Your task to perform on an android device: toggle translation in the chrome app Image 0: 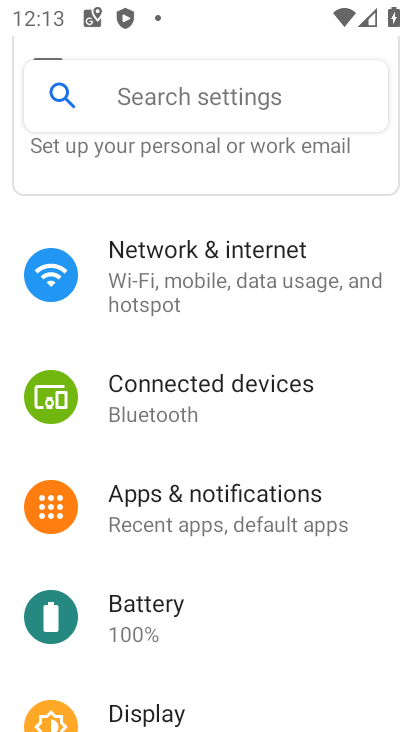
Step 0: press home button
Your task to perform on an android device: toggle translation in the chrome app Image 1: 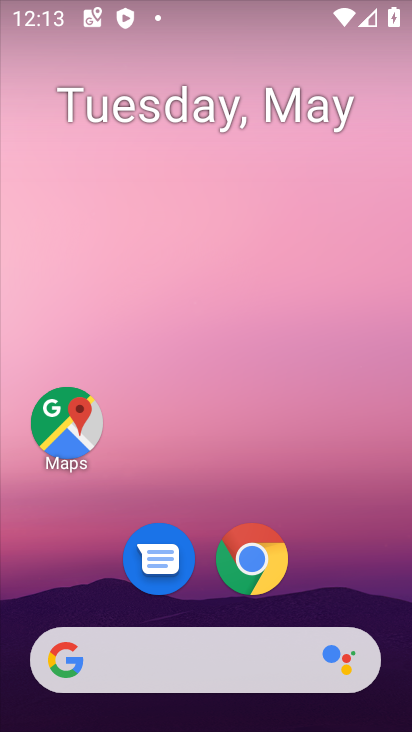
Step 1: click (271, 575)
Your task to perform on an android device: toggle translation in the chrome app Image 2: 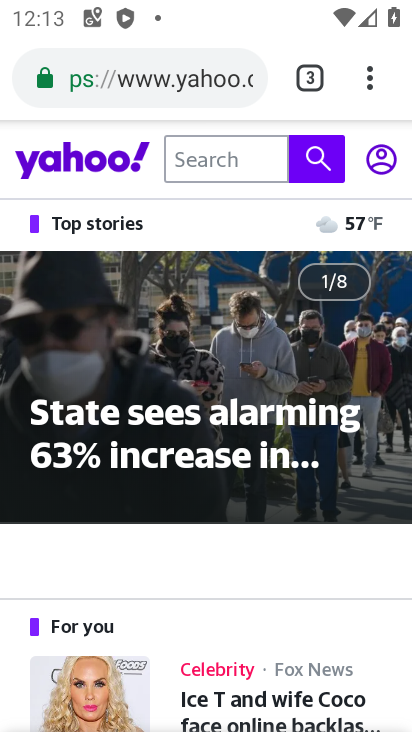
Step 2: click (362, 82)
Your task to perform on an android device: toggle translation in the chrome app Image 3: 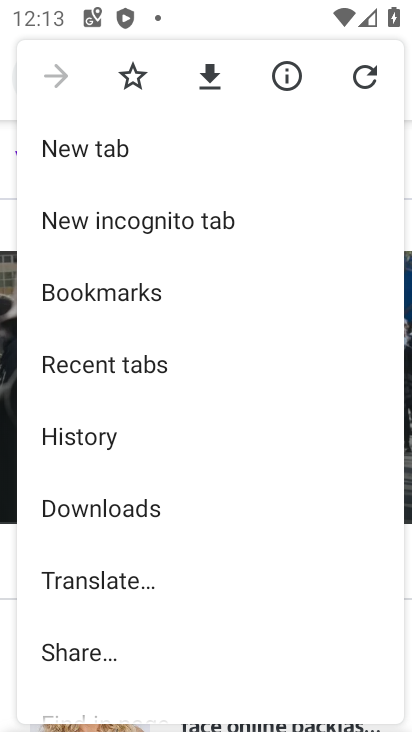
Step 3: drag from (162, 696) to (255, 294)
Your task to perform on an android device: toggle translation in the chrome app Image 4: 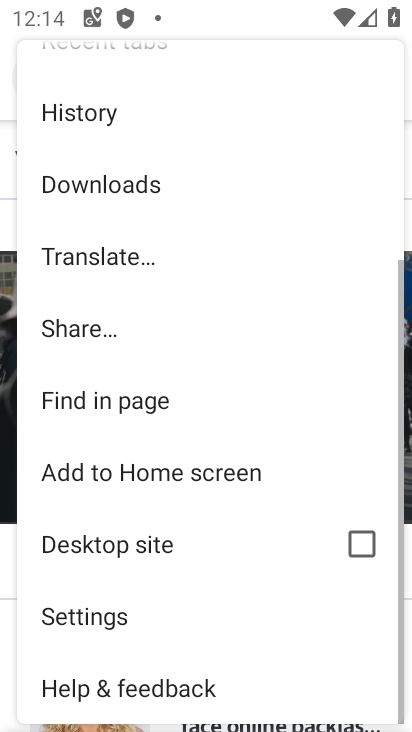
Step 4: click (140, 613)
Your task to perform on an android device: toggle translation in the chrome app Image 5: 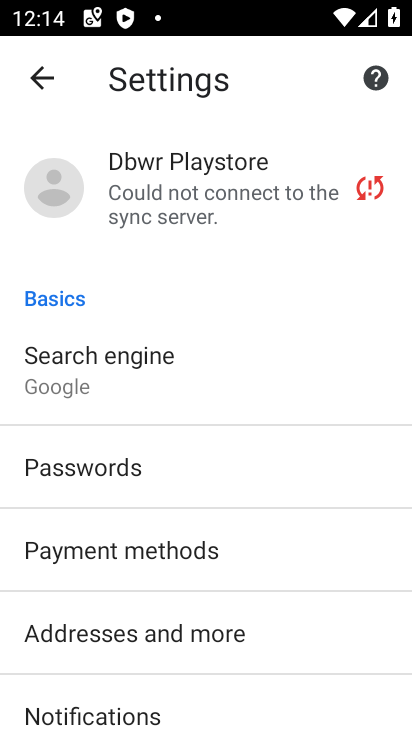
Step 5: drag from (138, 698) to (193, 296)
Your task to perform on an android device: toggle translation in the chrome app Image 6: 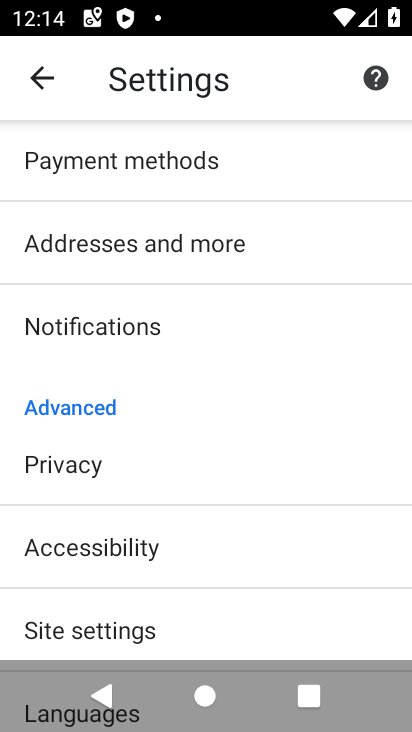
Step 6: click (135, 636)
Your task to perform on an android device: toggle translation in the chrome app Image 7: 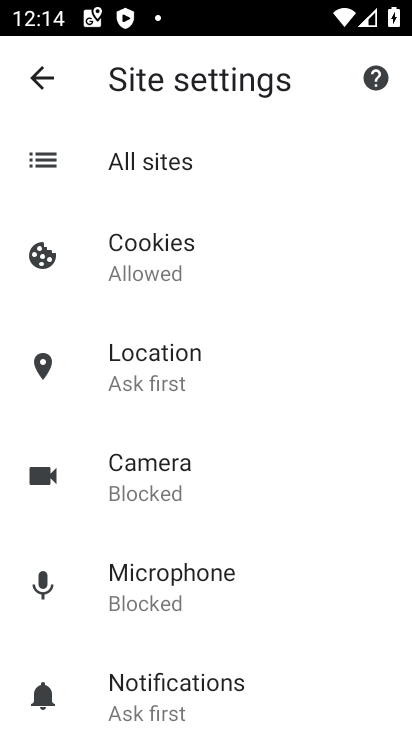
Step 7: task complete